Your task to perform on an android device: Show me popular games on the Play Store Image 0: 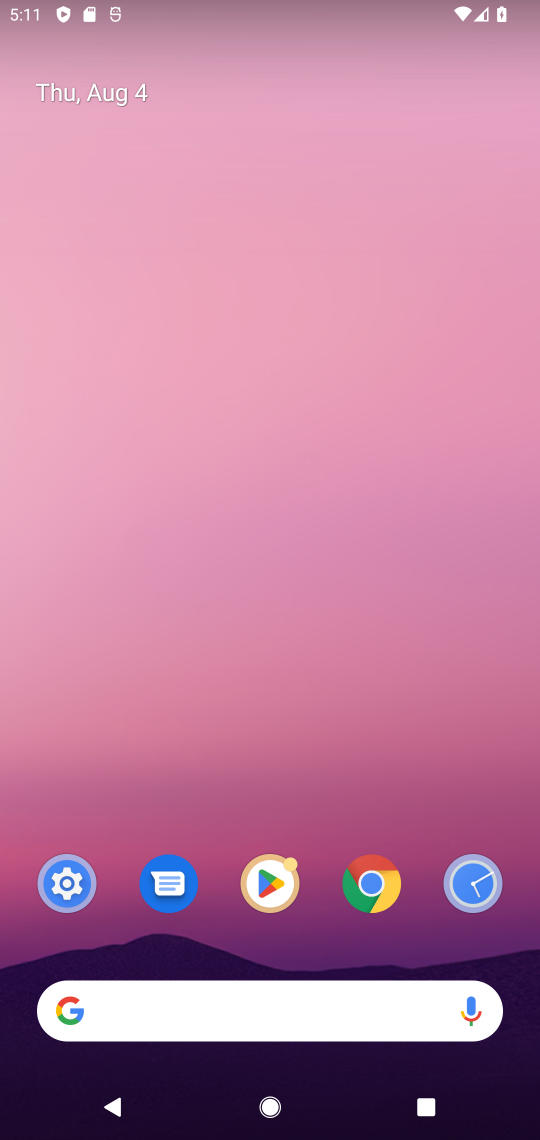
Step 0: click (274, 879)
Your task to perform on an android device: Show me popular games on the Play Store Image 1: 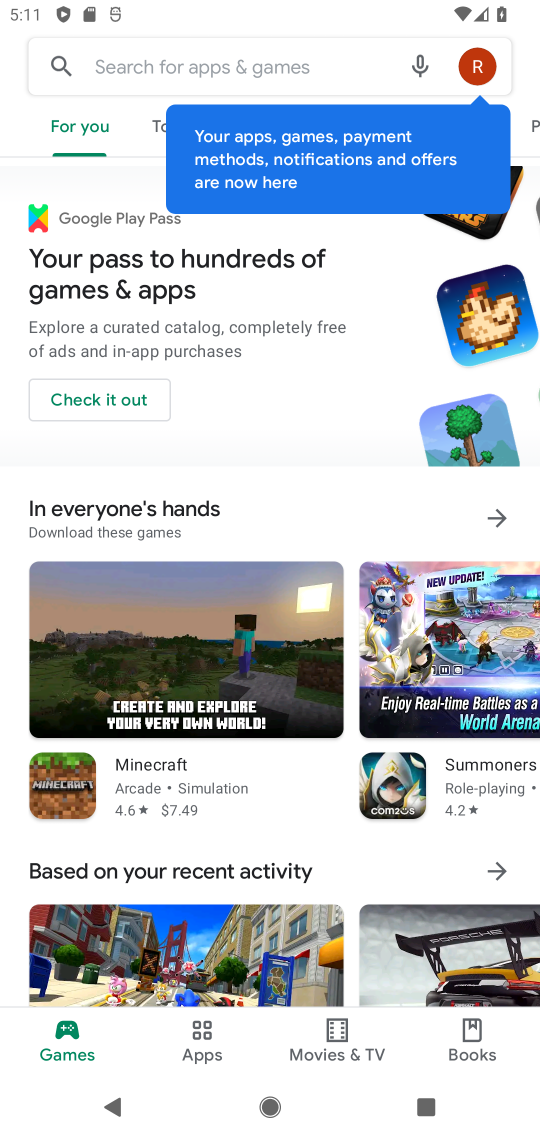
Step 1: click (341, 60)
Your task to perform on an android device: Show me popular games on the Play Store Image 2: 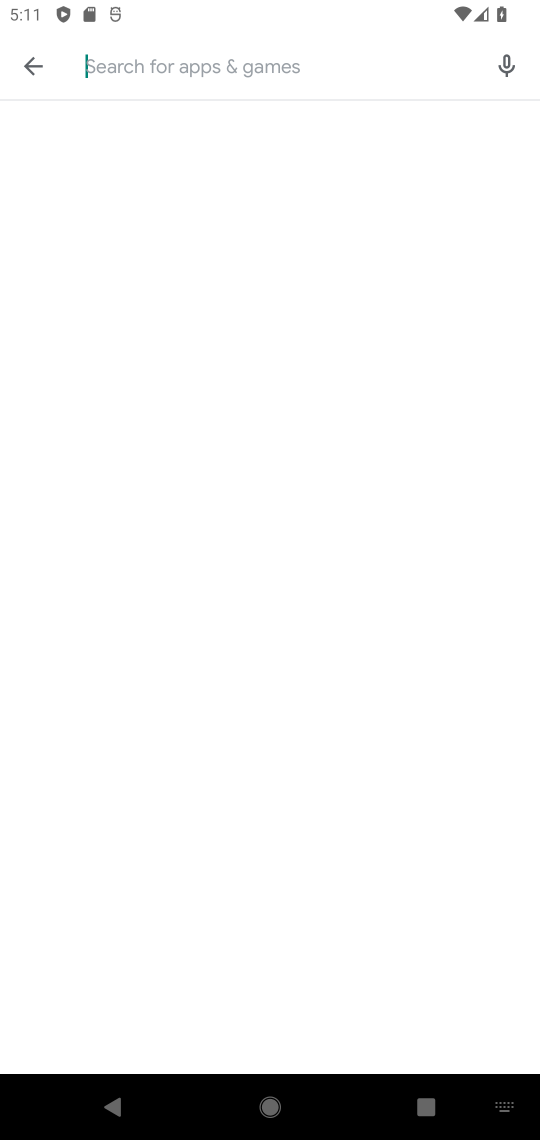
Step 2: click (57, 72)
Your task to perform on an android device: Show me popular games on the Play Store Image 3: 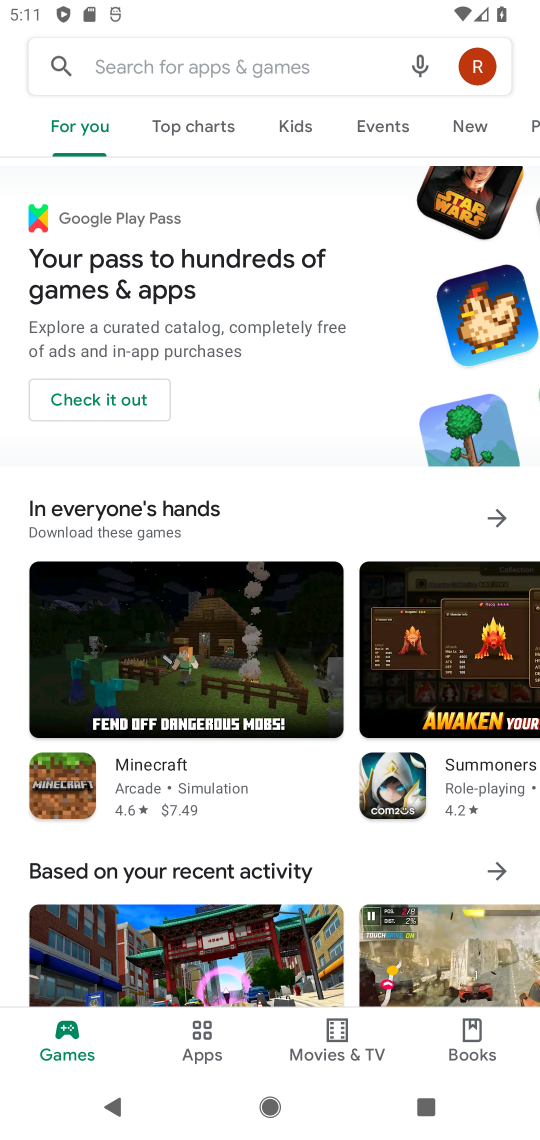
Step 3: task complete